Your task to perform on an android device: Open Wikipedia Image 0: 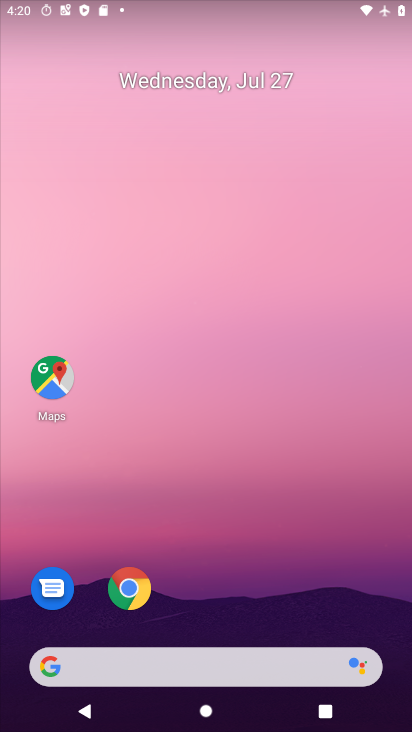
Step 0: press home button
Your task to perform on an android device: Open Wikipedia Image 1: 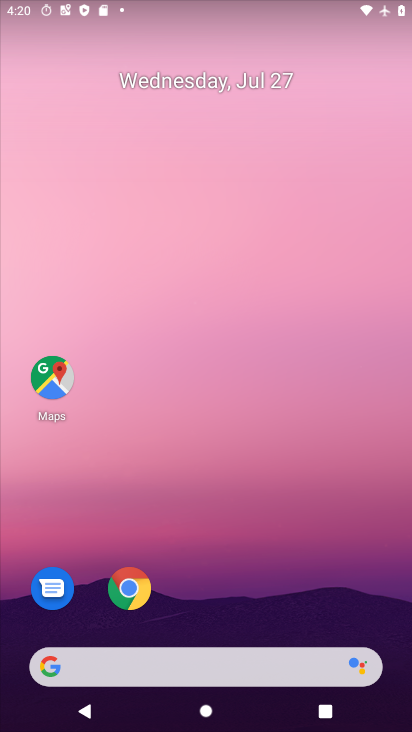
Step 1: click (42, 670)
Your task to perform on an android device: Open Wikipedia Image 2: 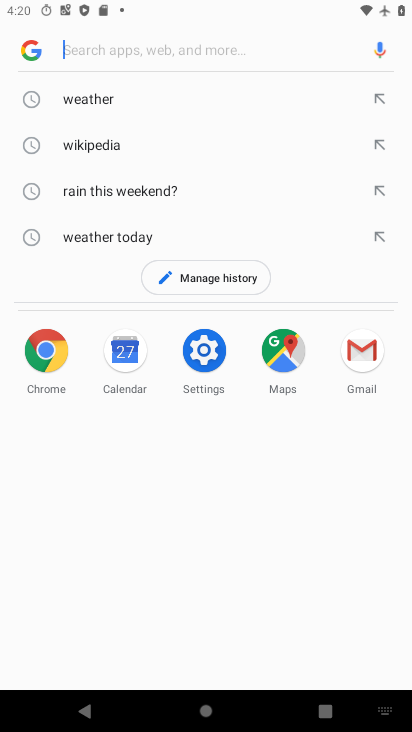
Step 2: click (97, 144)
Your task to perform on an android device: Open Wikipedia Image 3: 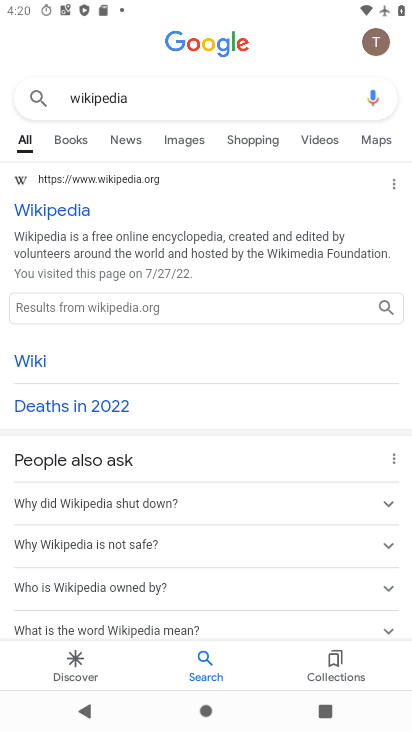
Step 3: click (51, 209)
Your task to perform on an android device: Open Wikipedia Image 4: 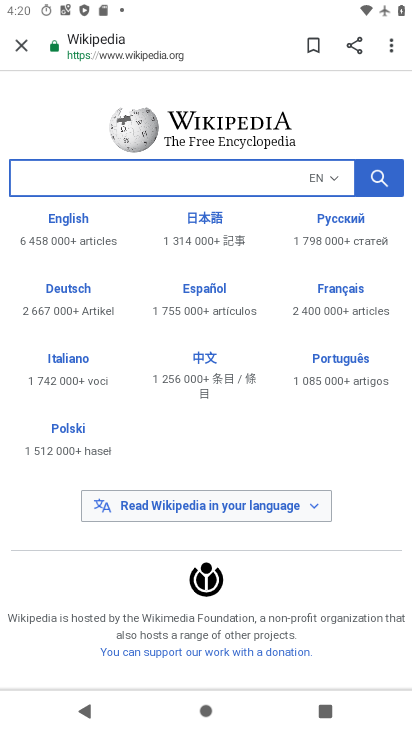
Step 4: task complete